Your task to perform on an android device: open chrome privacy settings Image 0: 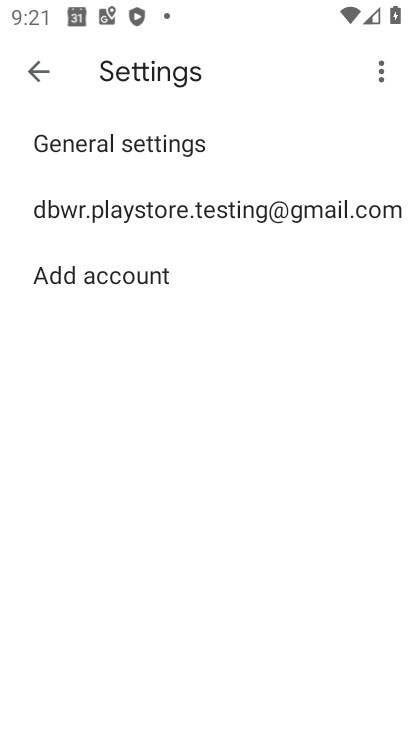
Step 0: press home button
Your task to perform on an android device: open chrome privacy settings Image 1: 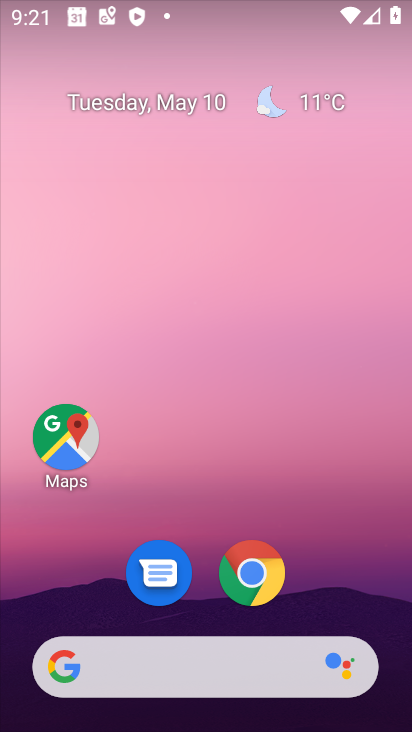
Step 1: click (254, 580)
Your task to perform on an android device: open chrome privacy settings Image 2: 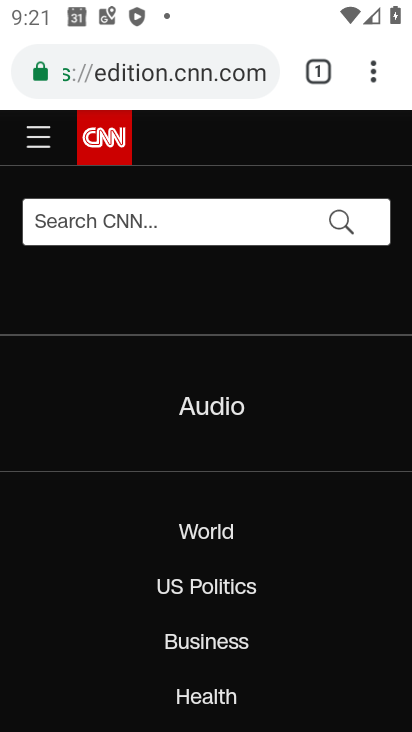
Step 2: drag from (378, 74) to (156, 574)
Your task to perform on an android device: open chrome privacy settings Image 3: 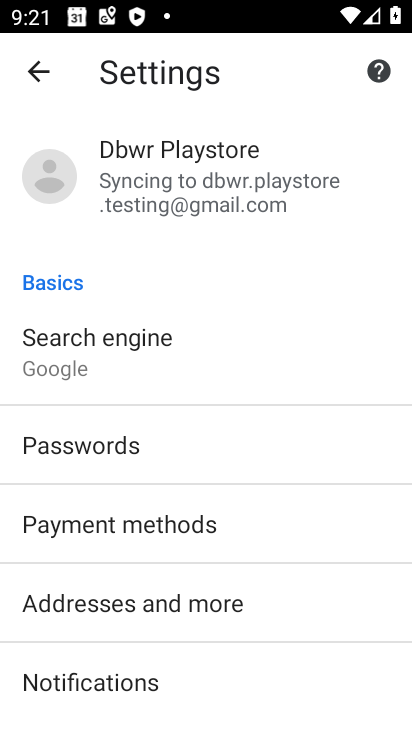
Step 3: drag from (295, 615) to (264, 241)
Your task to perform on an android device: open chrome privacy settings Image 4: 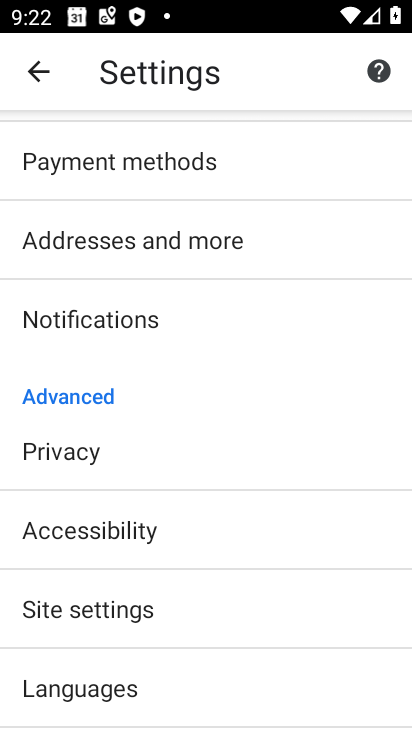
Step 4: click (93, 460)
Your task to perform on an android device: open chrome privacy settings Image 5: 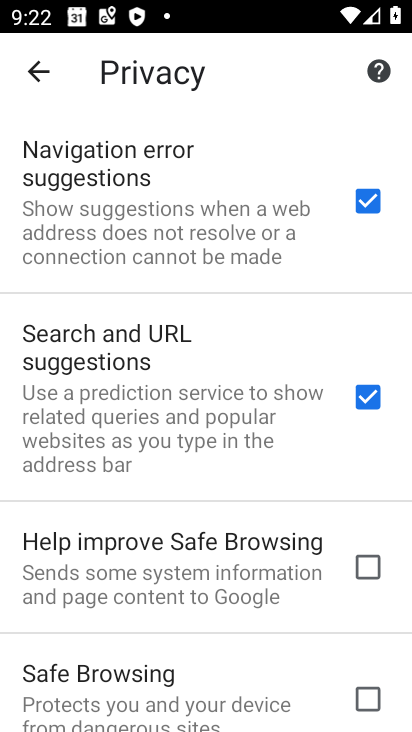
Step 5: task complete